Your task to perform on an android device: toggle show notifications on the lock screen Image 0: 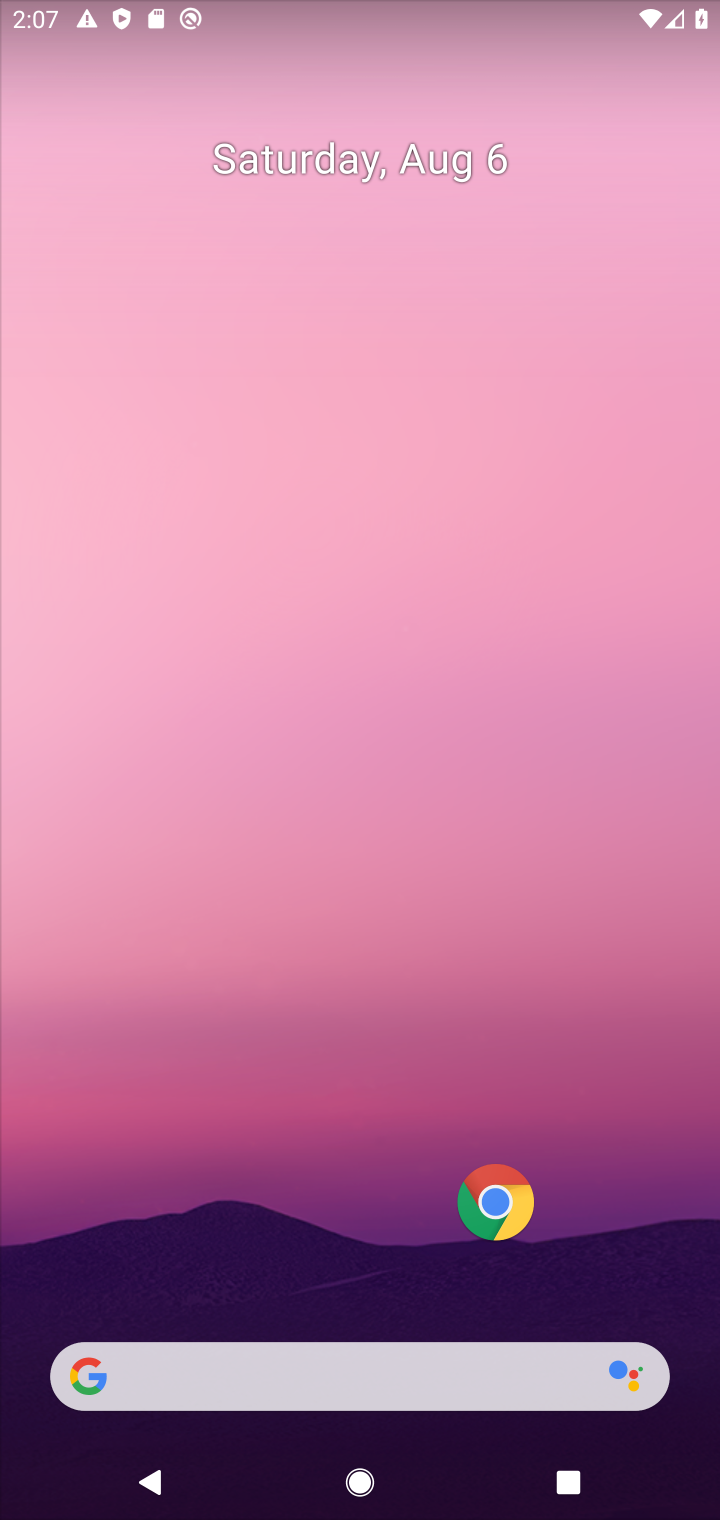
Step 0: drag from (358, 711) to (271, 322)
Your task to perform on an android device: toggle show notifications on the lock screen Image 1: 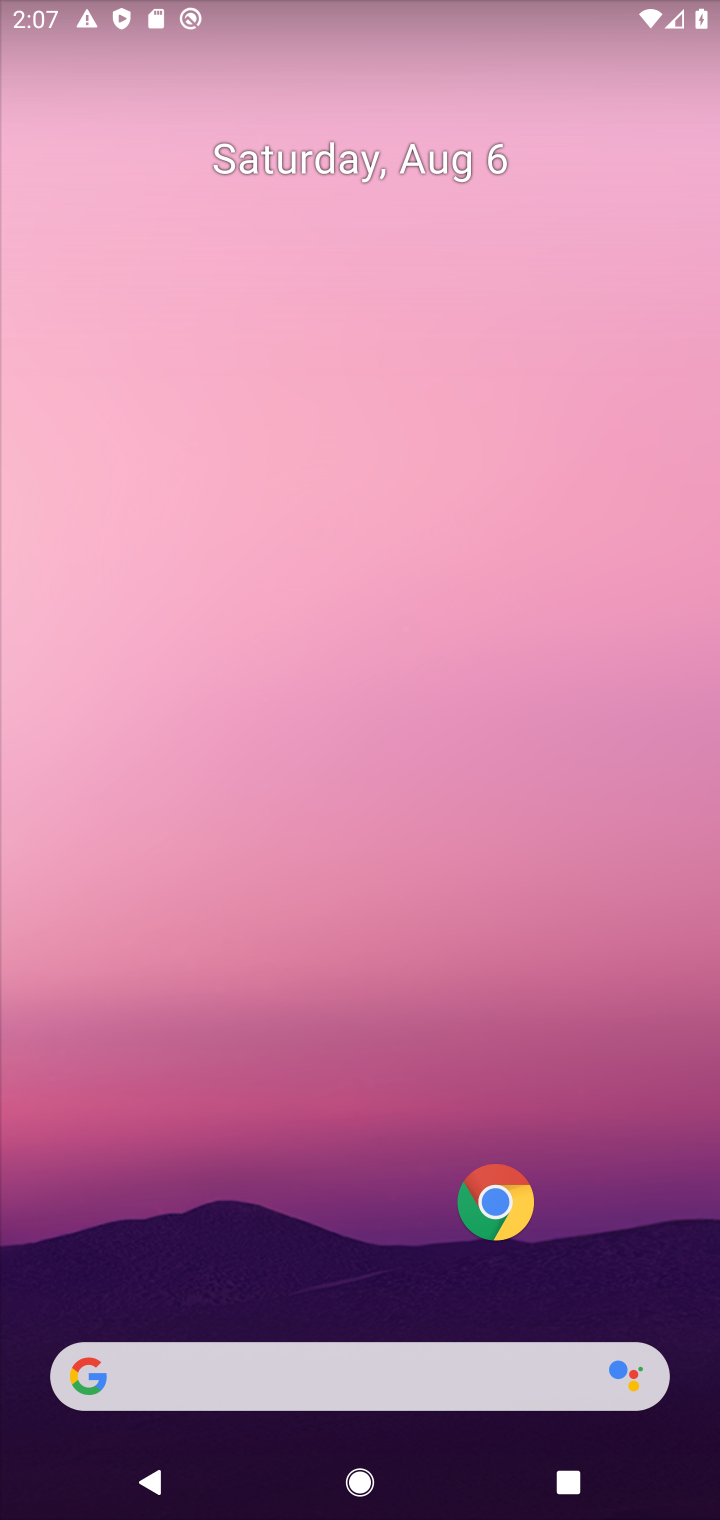
Step 1: drag from (374, 867) to (467, 0)
Your task to perform on an android device: toggle show notifications on the lock screen Image 2: 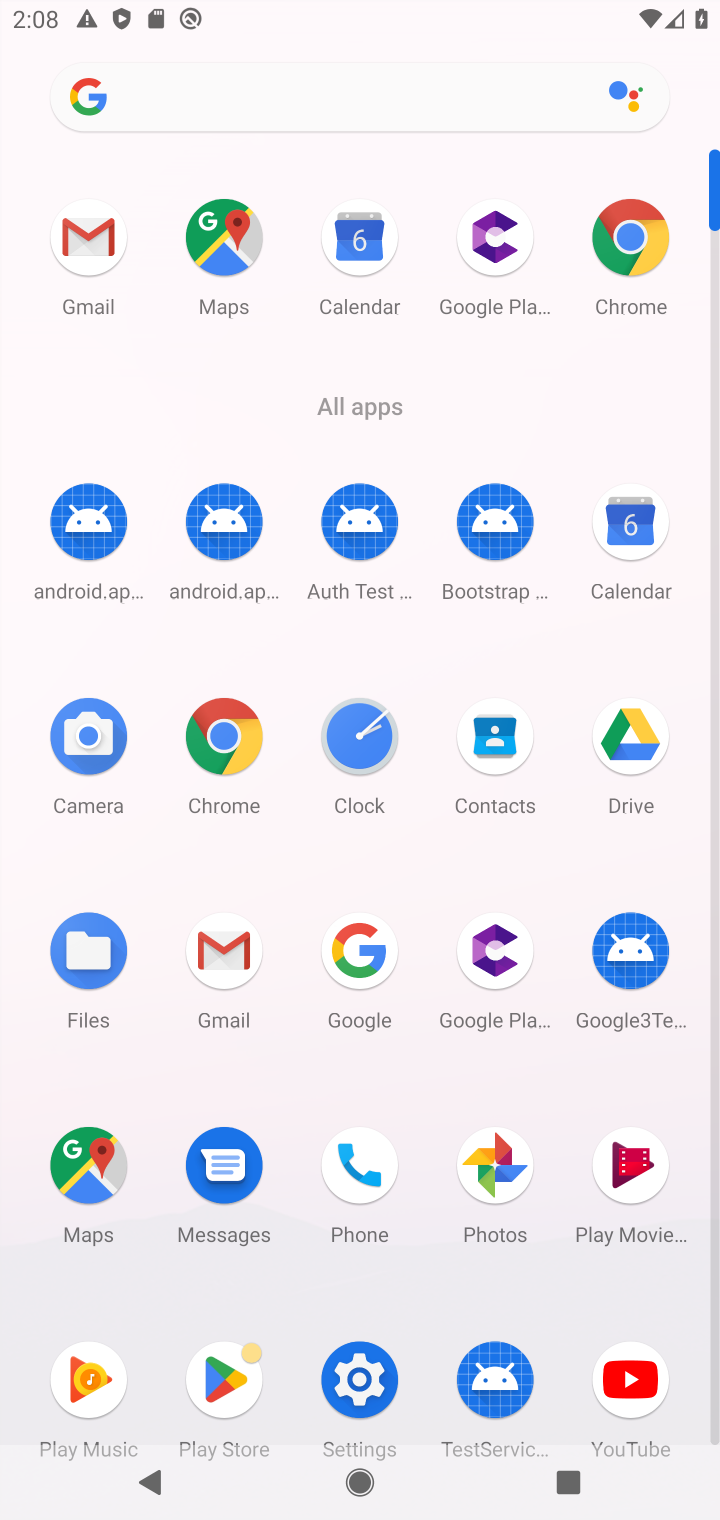
Step 2: click (354, 1387)
Your task to perform on an android device: toggle show notifications on the lock screen Image 3: 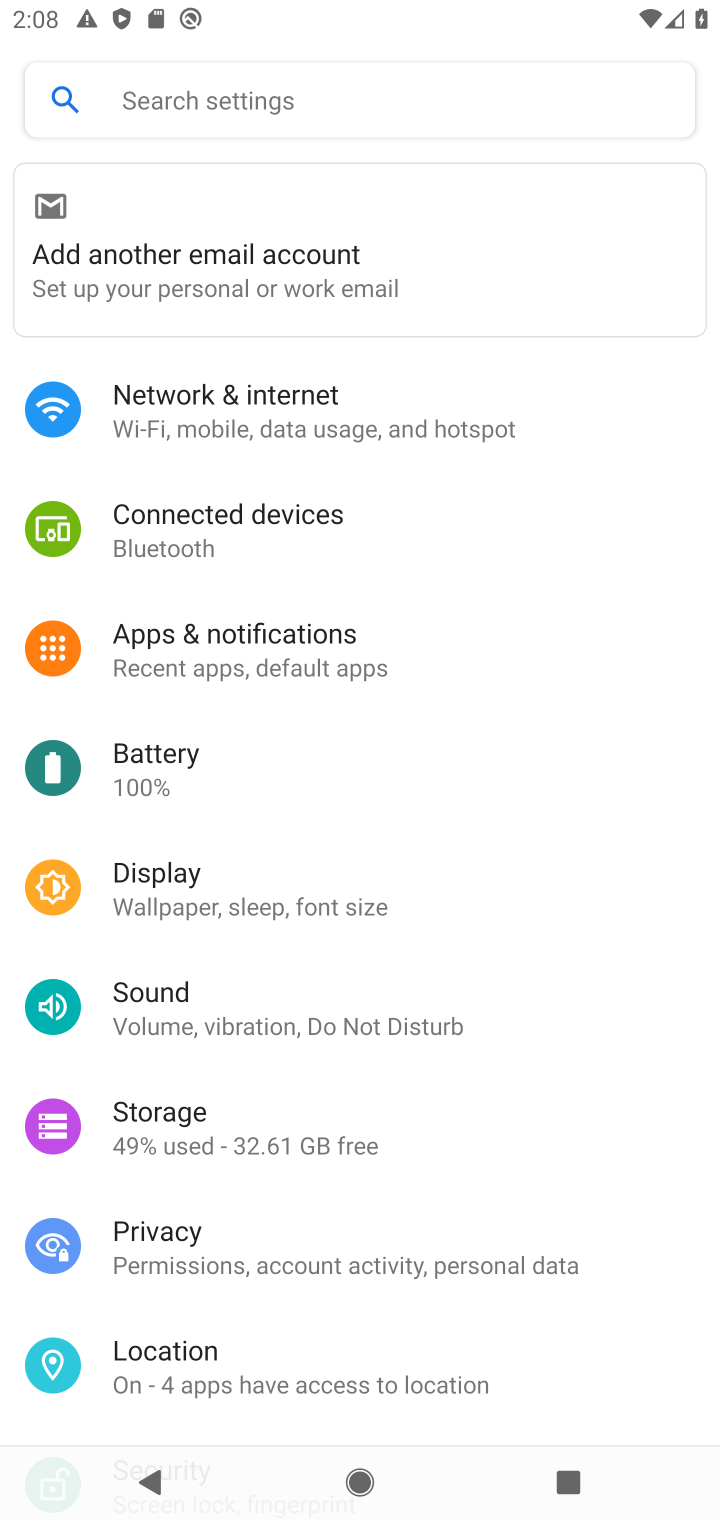
Step 3: click (172, 645)
Your task to perform on an android device: toggle show notifications on the lock screen Image 4: 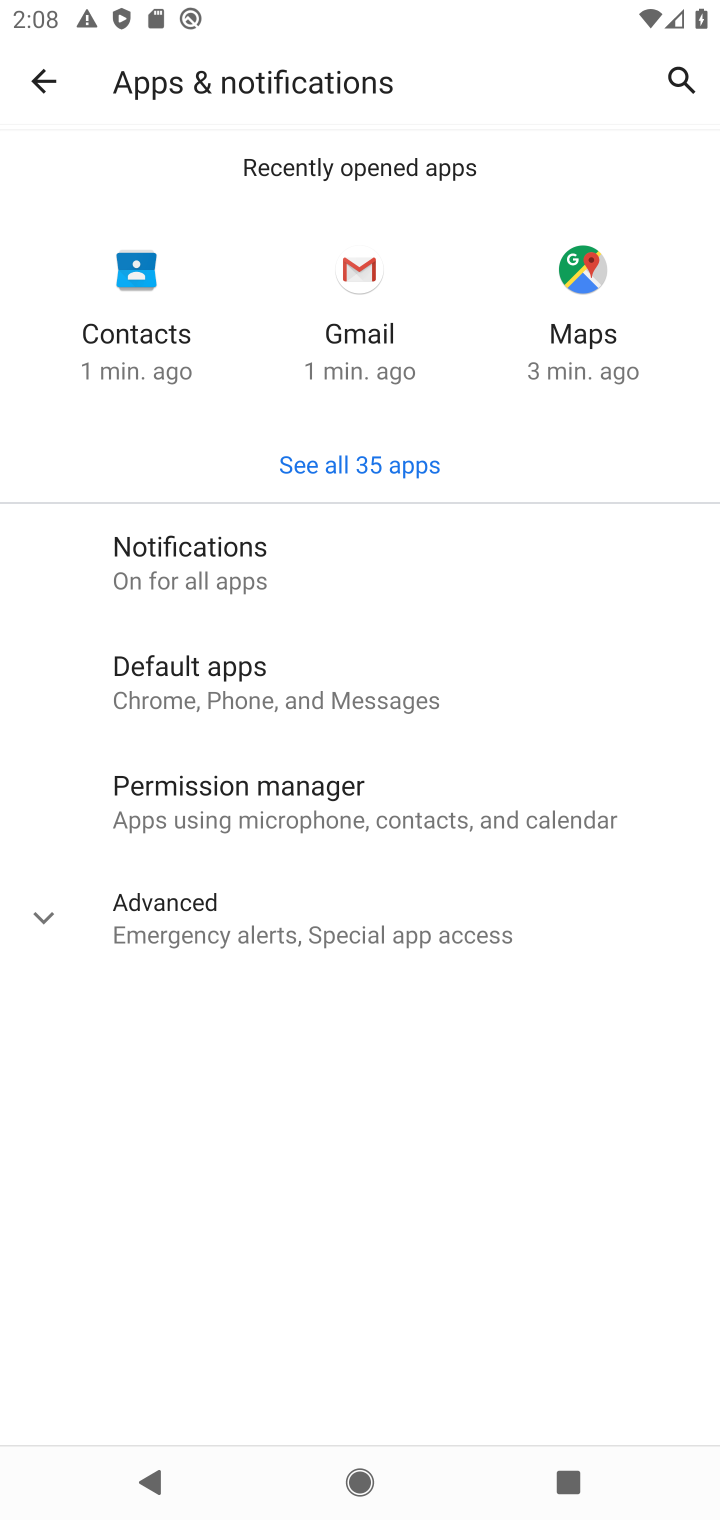
Step 4: click (170, 565)
Your task to perform on an android device: toggle show notifications on the lock screen Image 5: 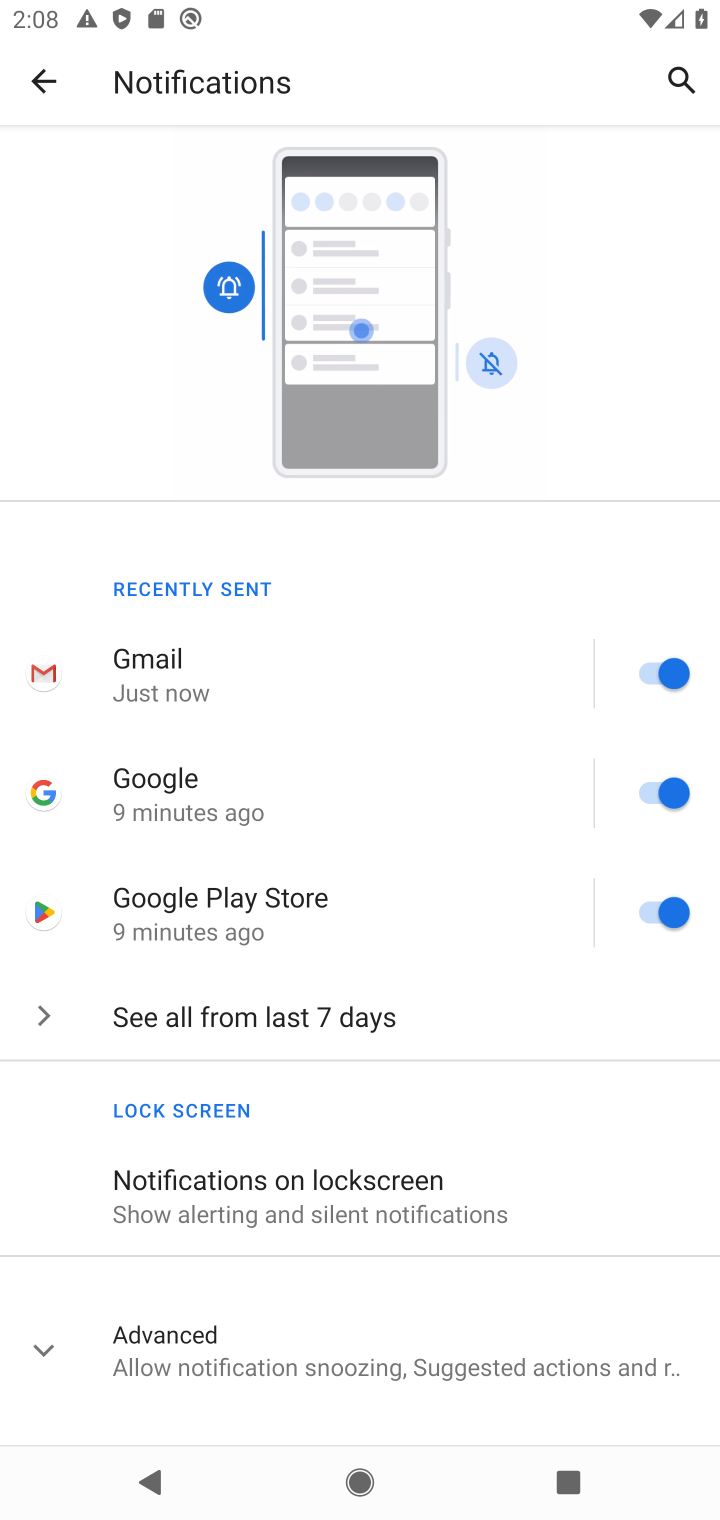
Step 5: click (279, 1206)
Your task to perform on an android device: toggle show notifications on the lock screen Image 6: 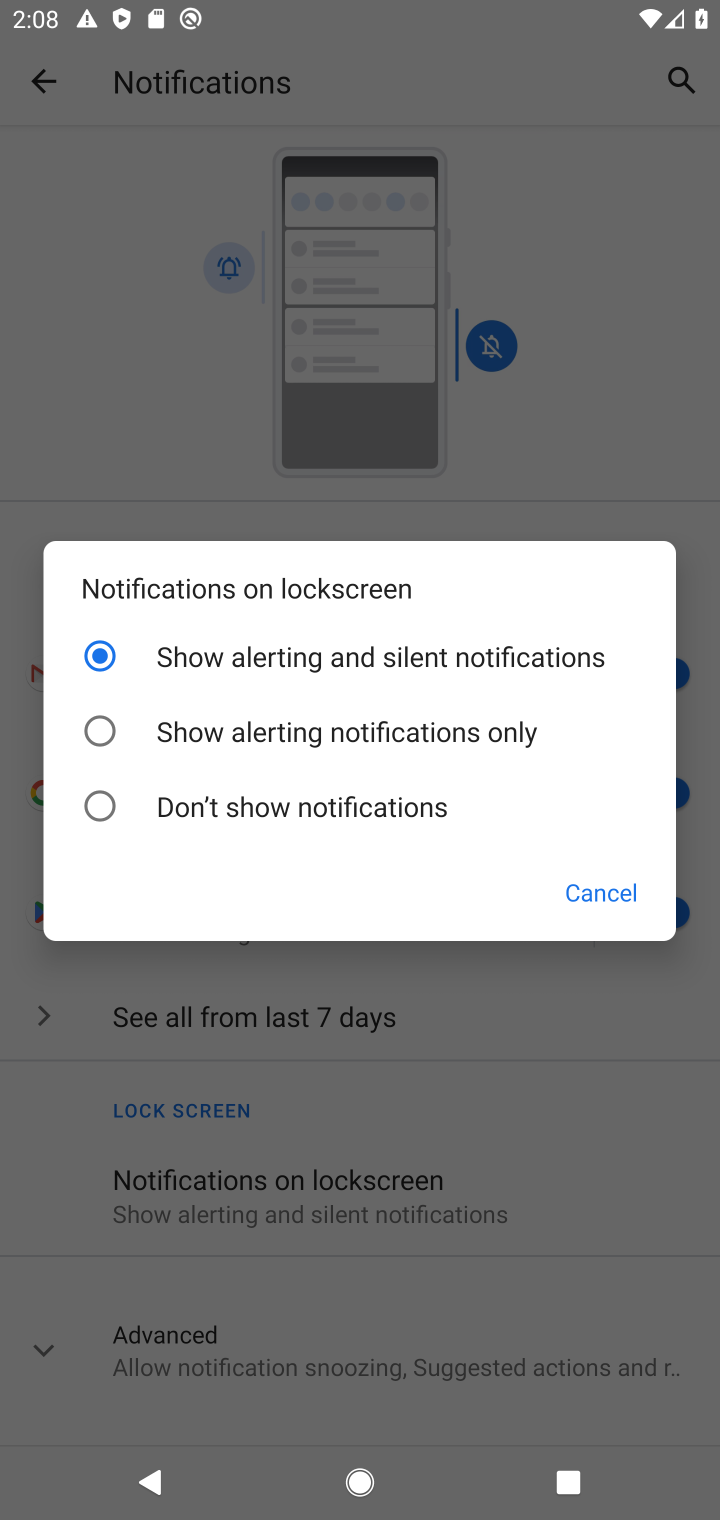
Step 6: click (88, 797)
Your task to perform on an android device: toggle show notifications on the lock screen Image 7: 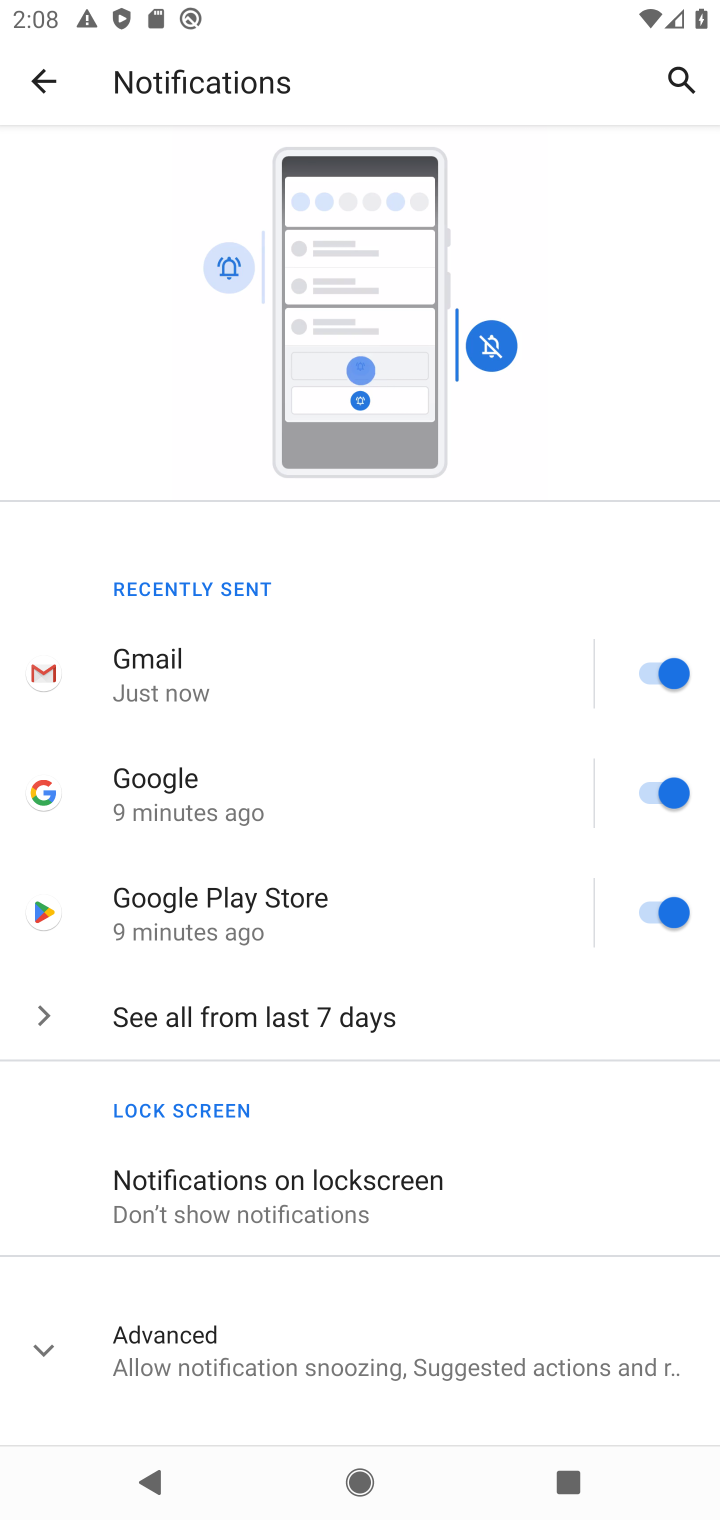
Step 7: task complete